Your task to perform on an android device: turn on translation in the chrome app Image 0: 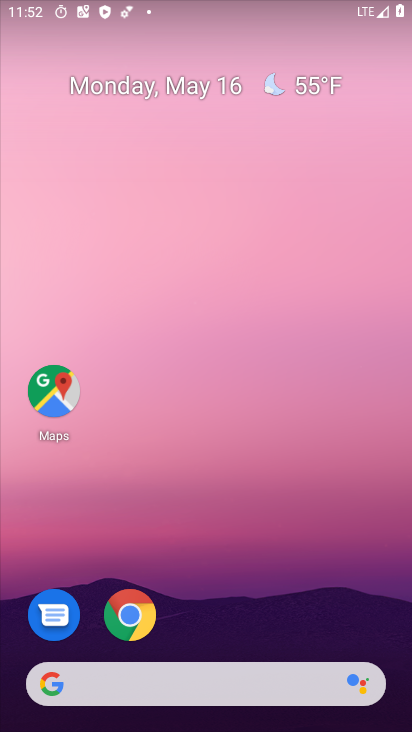
Step 0: click (130, 616)
Your task to perform on an android device: turn on translation in the chrome app Image 1: 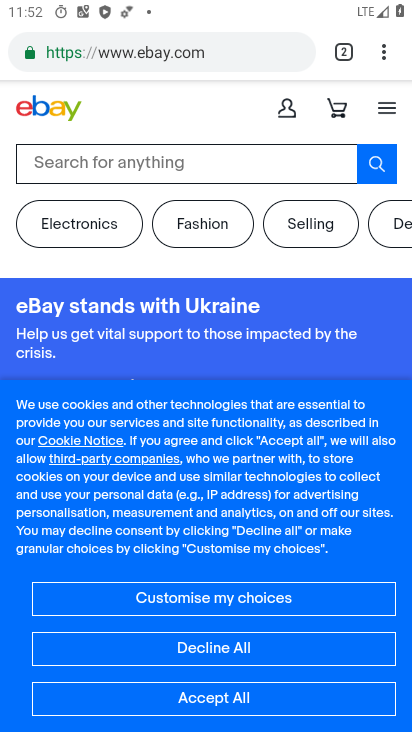
Step 1: drag from (385, 55) to (211, 628)
Your task to perform on an android device: turn on translation in the chrome app Image 2: 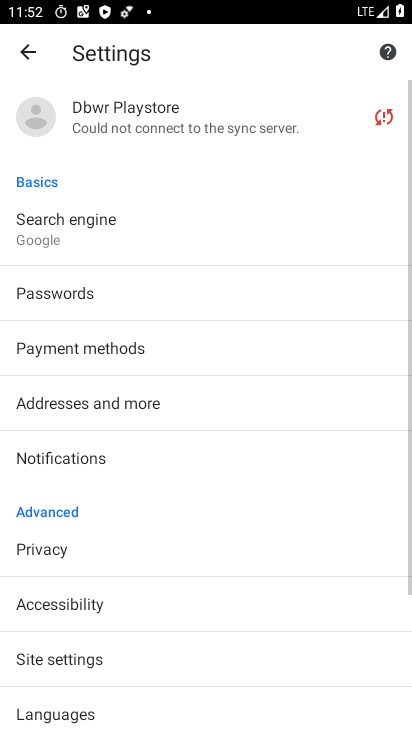
Step 2: drag from (255, 614) to (270, 232)
Your task to perform on an android device: turn on translation in the chrome app Image 3: 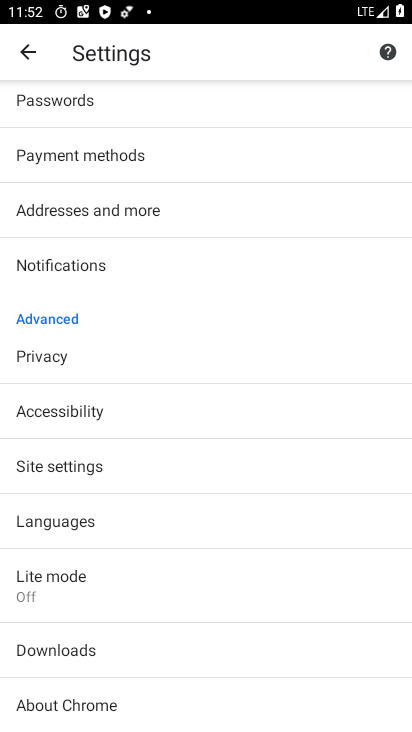
Step 3: click (116, 525)
Your task to perform on an android device: turn on translation in the chrome app Image 4: 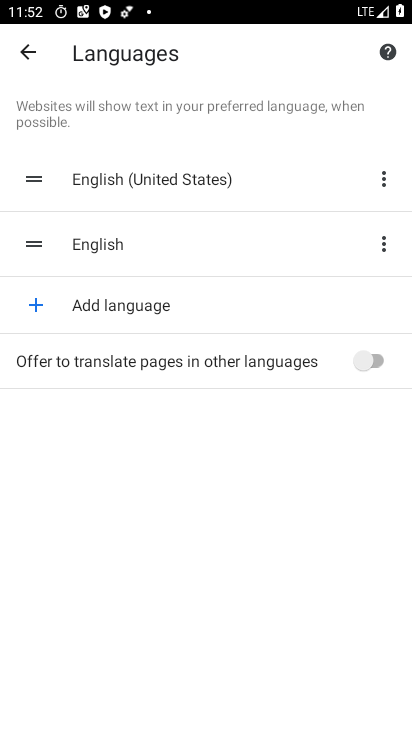
Step 4: click (375, 356)
Your task to perform on an android device: turn on translation in the chrome app Image 5: 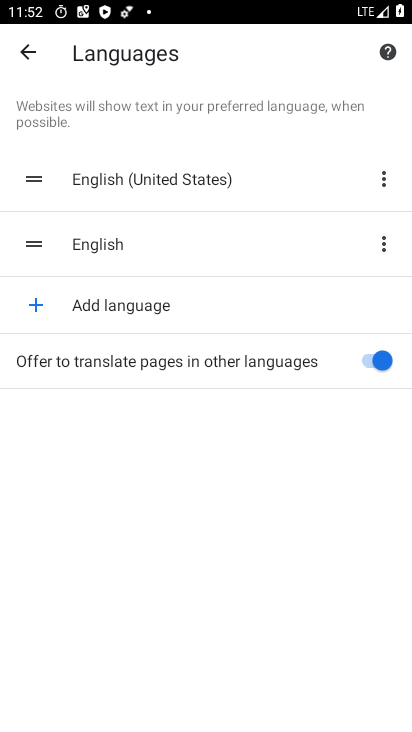
Step 5: task complete